Your task to perform on an android device: see tabs open on other devices in the chrome app Image 0: 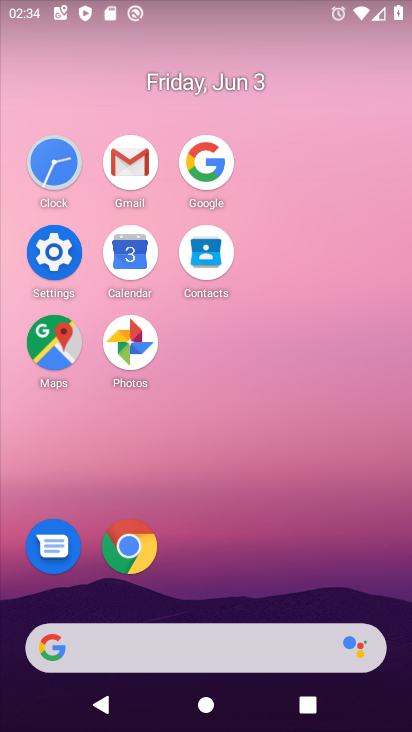
Step 0: click (122, 571)
Your task to perform on an android device: see tabs open on other devices in the chrome app Image 1: 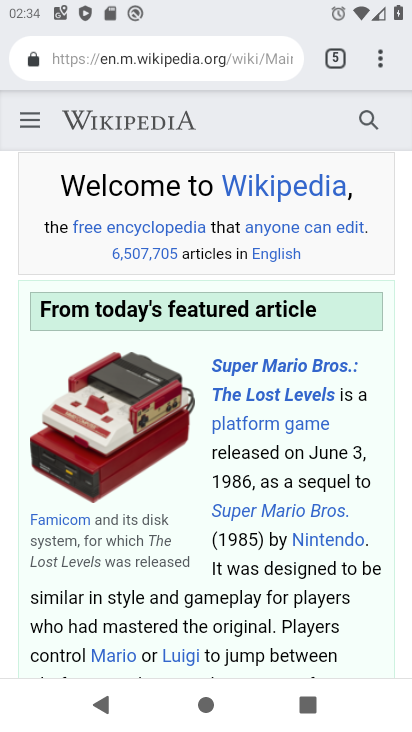
Step 1: click (377, 65)
Your task to perform on an android device: see tabs open on other devices in the chrome app Image 2: 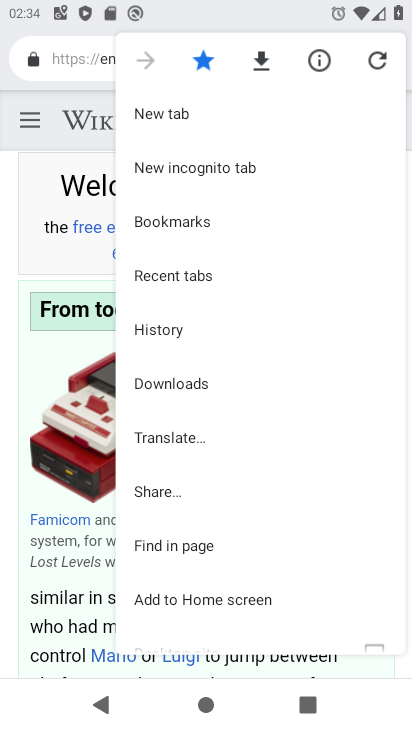
Step 2: click (232, 283)
Your task to perform on an android device: see tabs open on other devices in the chrome app Image 3: 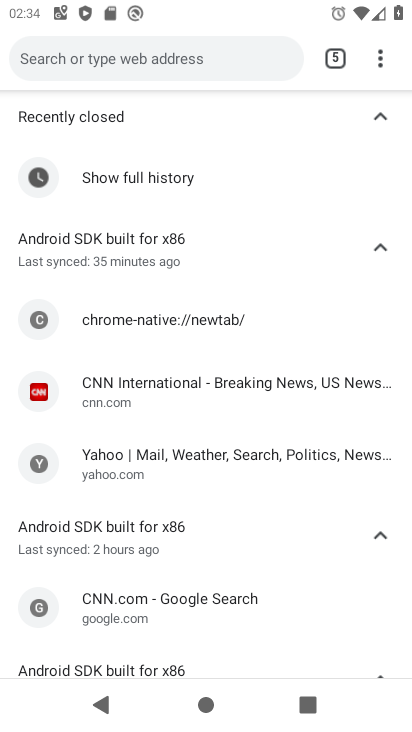
Step 3: click (155, 176)
Your task to perform on an android device: see tabs open on other devices in the chrome app Image 4: 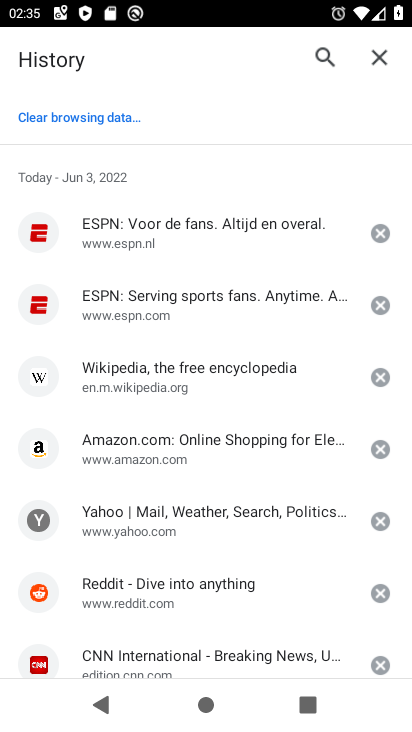
Step 4: task complete